Your task to perform on an android device: turn on location history Image 0: 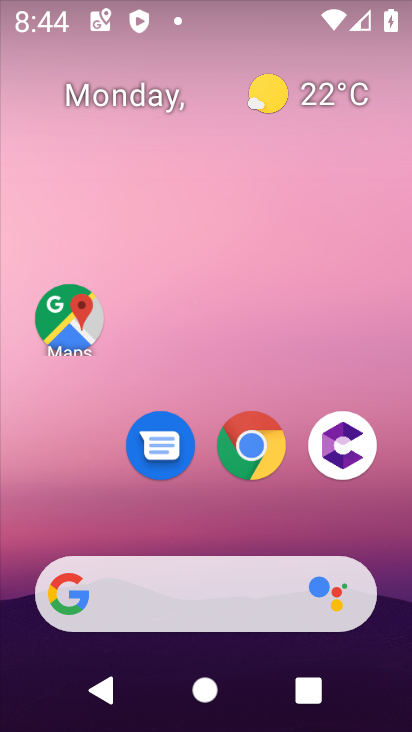
Step 0: drag from (177, 330) to (200, 2)
Your task to perform on an android device: turn on location history Image 1: 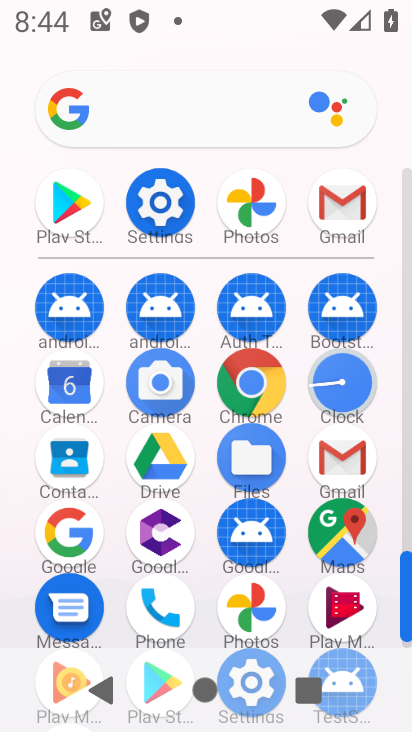
Step 1: click (162, 212)
Your task to perform on an android device: turn on location history Image 2: 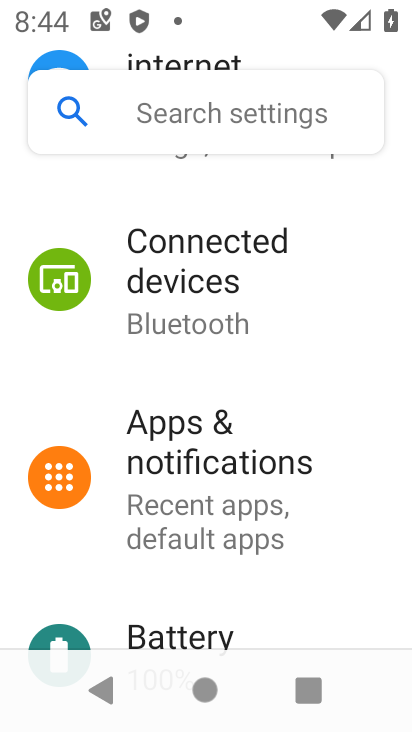
Step 2: drag from (42, 561) to (94, 125)
Your task to perform on an android device: turn on location history Image 3: 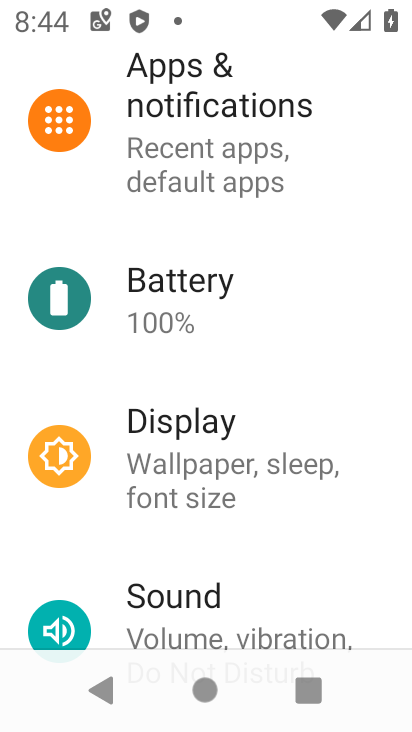
Step 3: drag from (75, 540) to (108, 119)
Your task to perform on an android device: turn on location history Image 4: 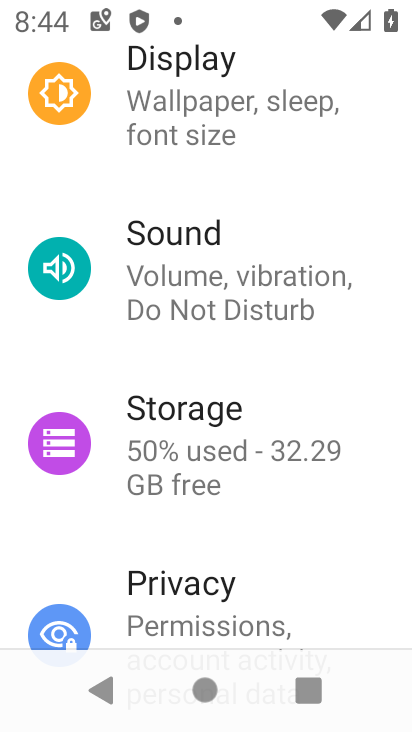
Step 4: drag from (75, 554) to (75, 143)
Your task to perform on an android device: turn on location history Image 5: 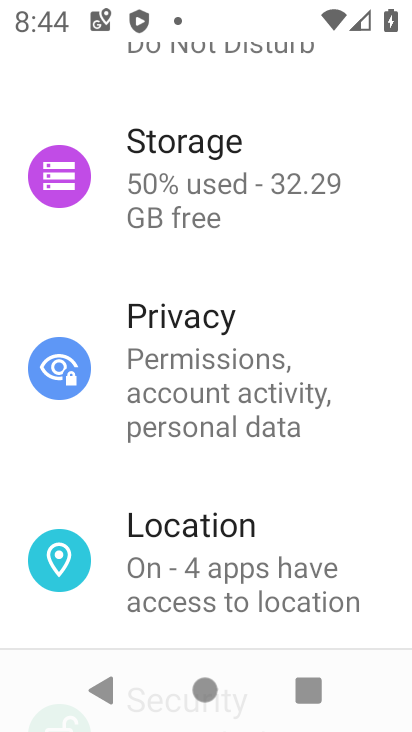
Step 5: click (204, 551)
Your task to perform on an android device: turn on location history Image 6: 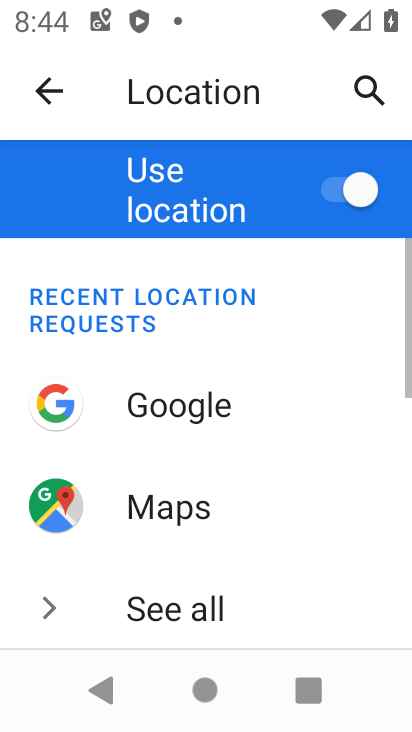
Step 6: task complete